Your task to perform on an android device: visit the assistant section in the google photos Image 0: 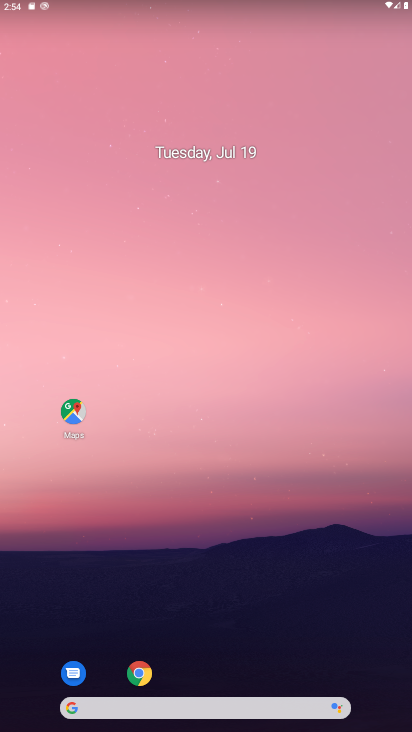
Step 0: drag from (210, 674) to (187, 76)
Your task to perform on an android device: visit the assistant section in the google photos Image 1: 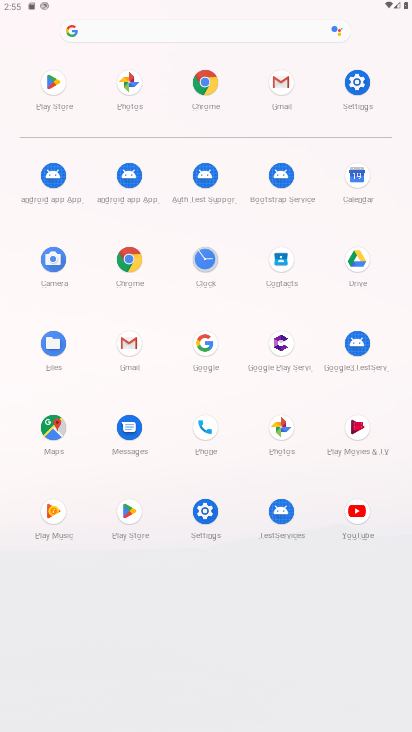
Step 1: drag from (207, 402) to (179, 7)
Your task to perform on an android device: visit the assistant section in the google photos Image 2: 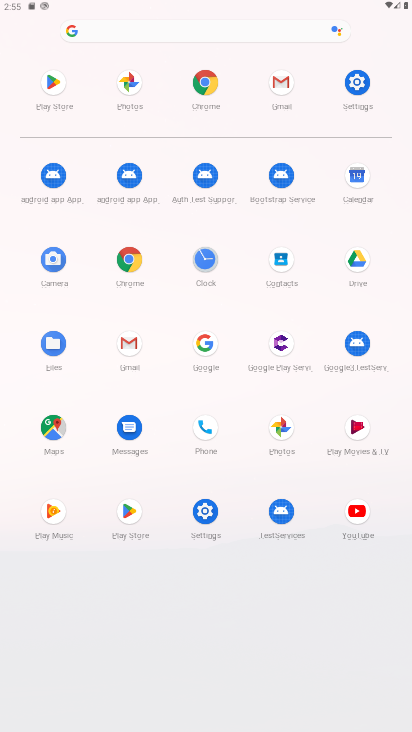
Step 2: click (287, 432)
Your task to perform on an android device: visit the assistant section in the google photos Image 3: 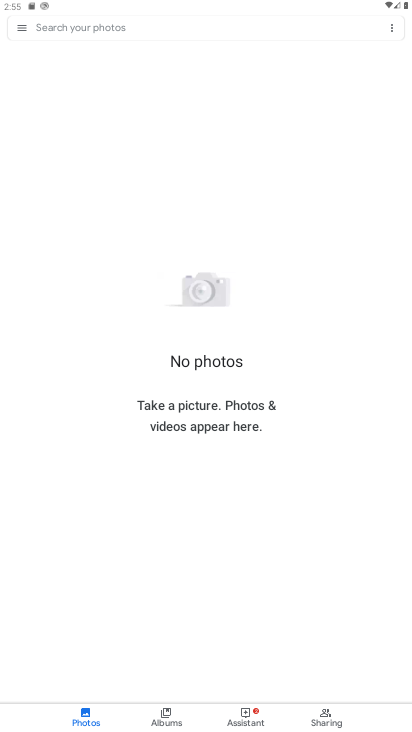
Step 3: click (241, 719)
Your task to perform on an android device: visit the assistant section in the google photos Image 4: 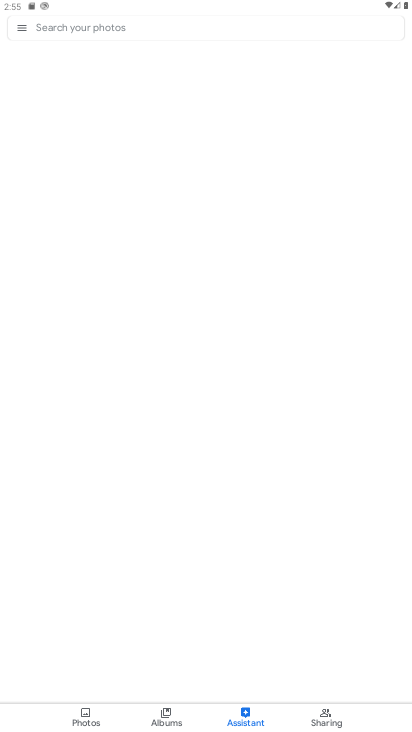
Step 4: click (243, 714)
Your task to perform on an android device: visit the assistant section in the google photos Image 5: 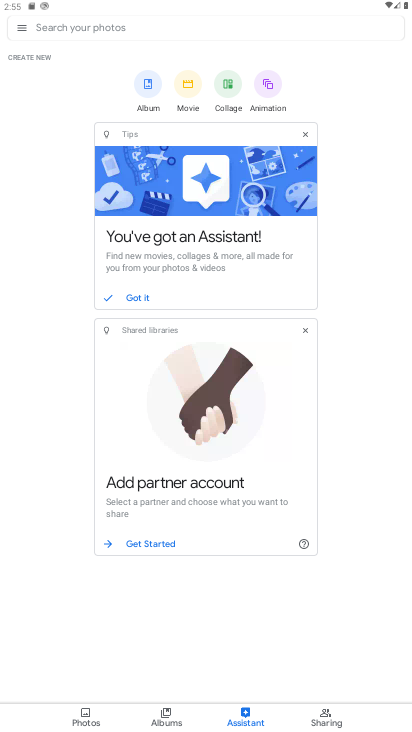
Step 5: task complete